Your task to perform on an android device: Go to battery settings Image 0: 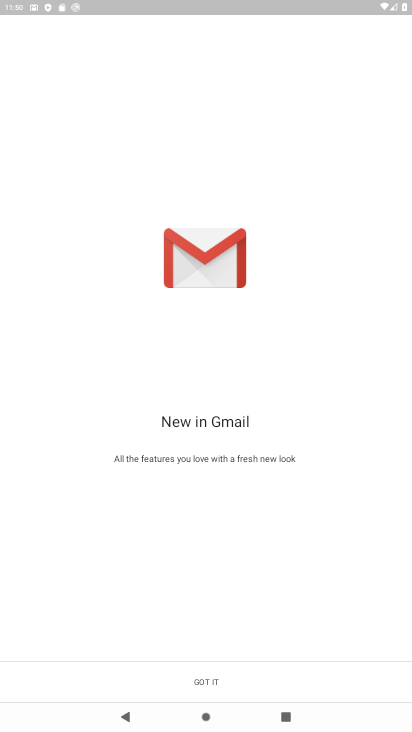
Step 0: click (306, 685)
Your task to perform on an android device: Go to battery settings Image 1: 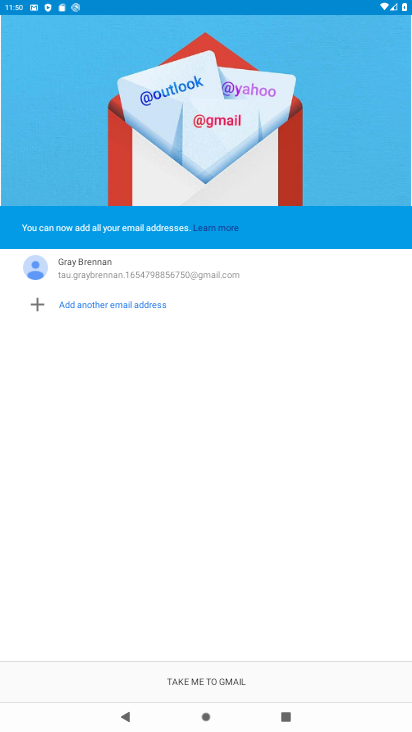
Step 1: click (306, 685)
Your task to perform on an android device: Go to battery settings Image 2: 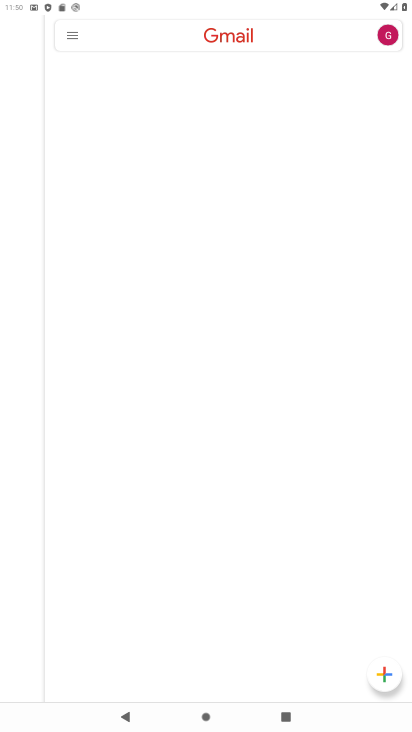
Step 2: press home button
Your task to perform on an android device: Go to battery settings Image 3: 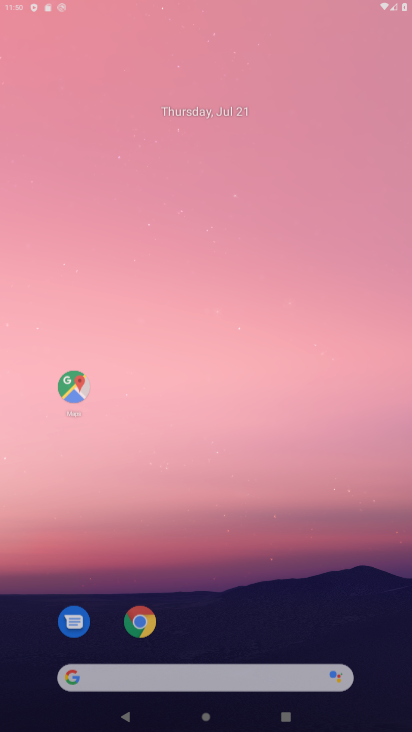
Step 3: drag from (240, 630) to (246, 4)
Your task to perform on an android device: Go to battery settings Image 4: 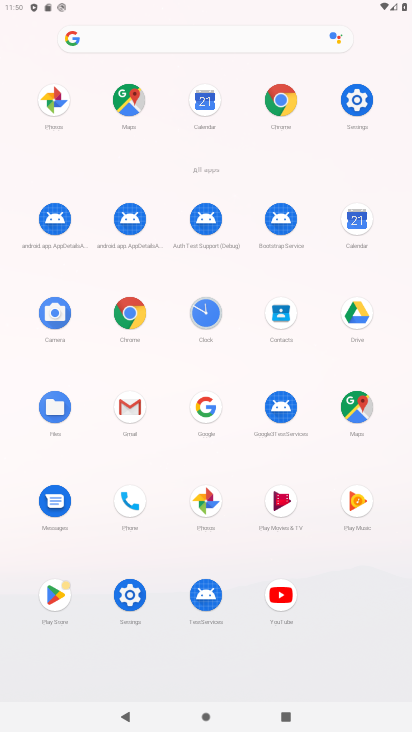
Step 4: click (353, 101)
Your task to perform on an android device: Go to battery settings Image 5: 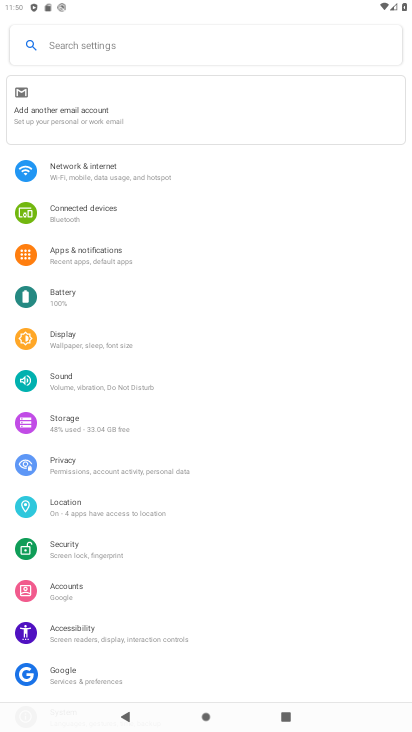
Step 5: click (81, 295)
Your task to perform on an android device: Go to battery settings Image 6: 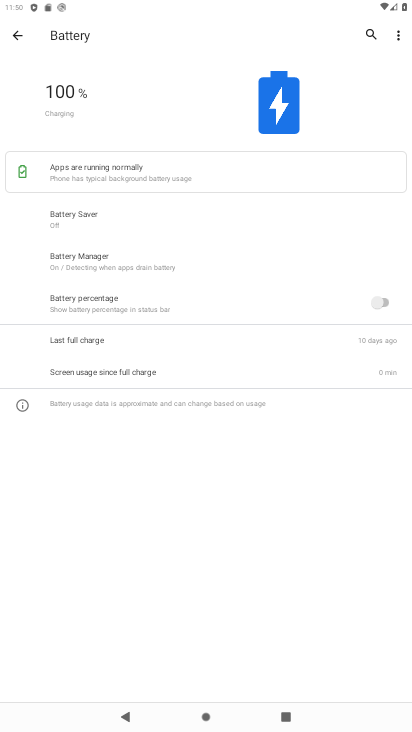
Step 6: task complete